Your task to perform on an android device: toggle wifi Image 0: 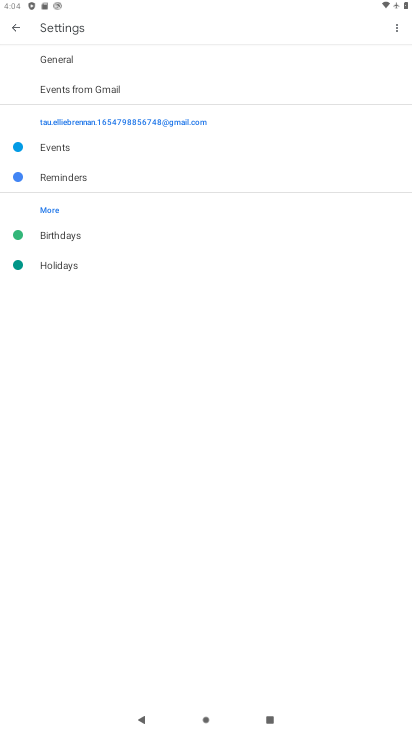
Step 0: press home button
Your task to perform on an android device: toggle wifi Image 1: 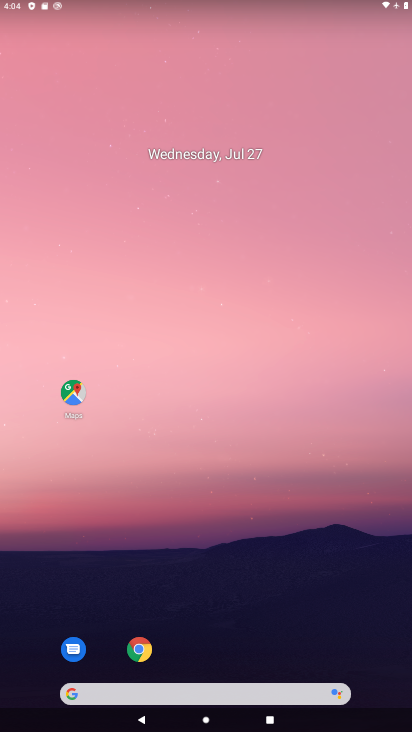
Step 1: drag from (207, 651) to (203, 107)
Your task to perform on an android device: toggle wifi Image 2: 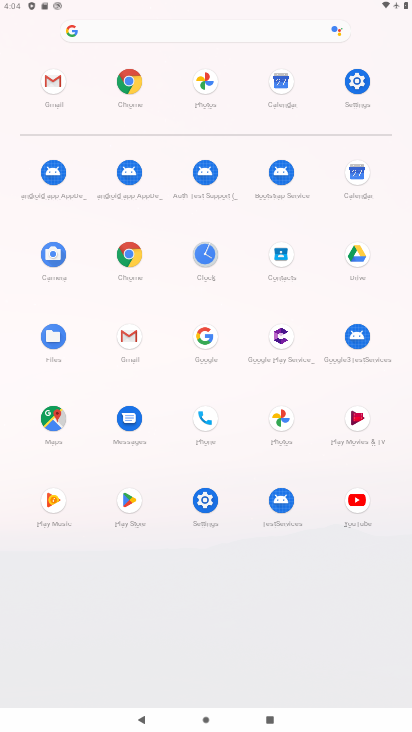
Step 2: click (352, 84)
Your task to perform on an android device: toggle wifi Image 3: 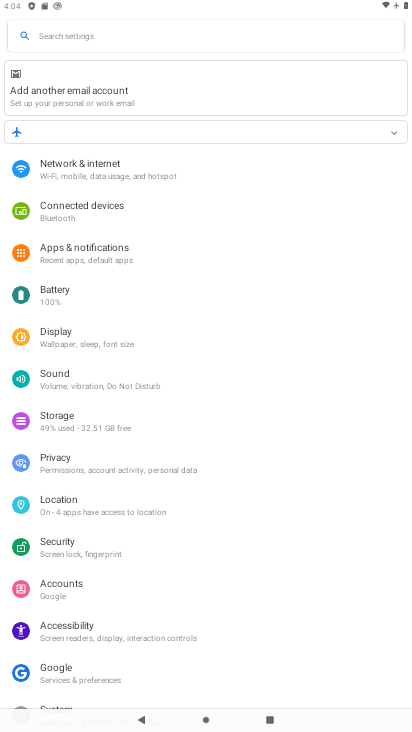
Step 3: click (242, 165)
Your task to perform on an android device: toggle wifi Image 4: 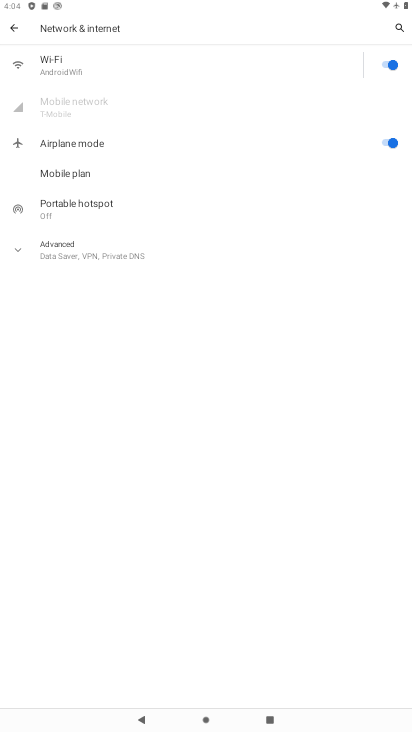
Step 4: click (388, 68)
Your task to perform on an android device: toggle wifi Image 5: 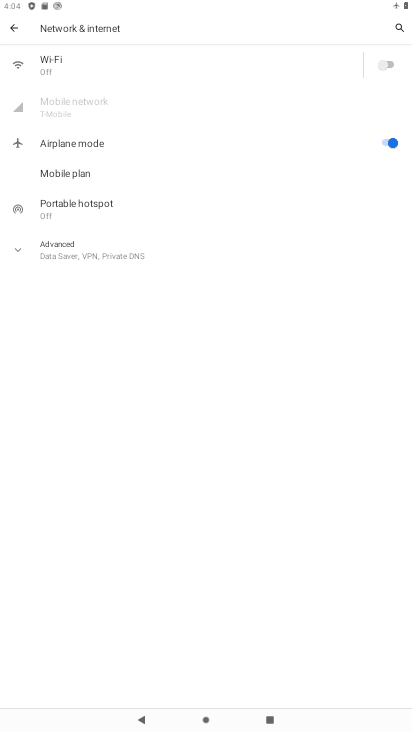
Step 5: task complete